Your task to perform on an android device: Open wifi settings Image 0: 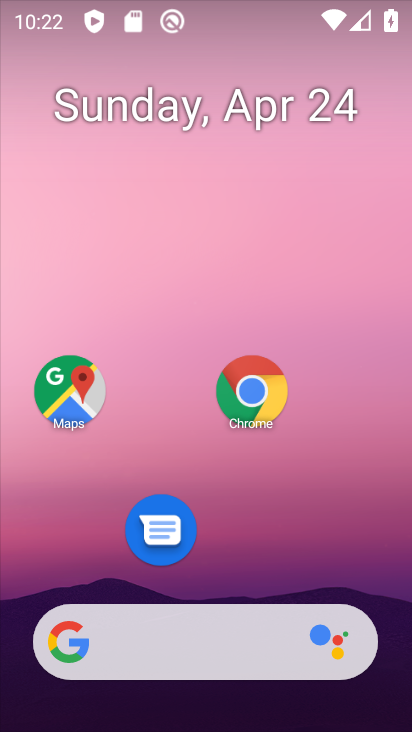
Step 0: drag from (85, 14) to (155, 497)
Your task to perform on an android device: Open wifi settings Image 1: 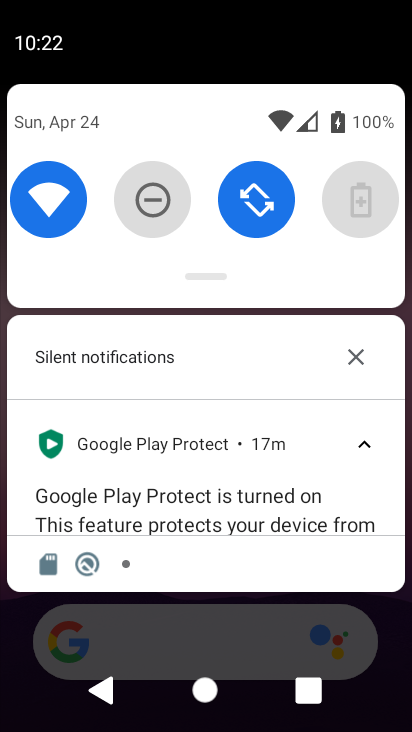
Step 1: click (65, 181)
Your task to perform on an android device: Open wifi settings Image 2: 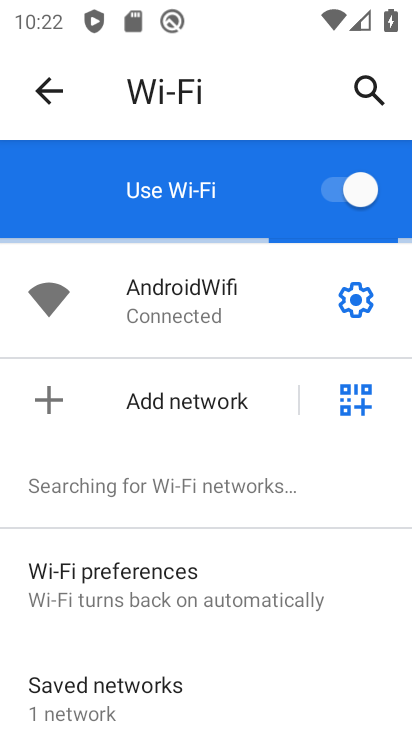
Step 2: task complete